Your task to perform on an android device: turn off improve location accuracy Image 0: 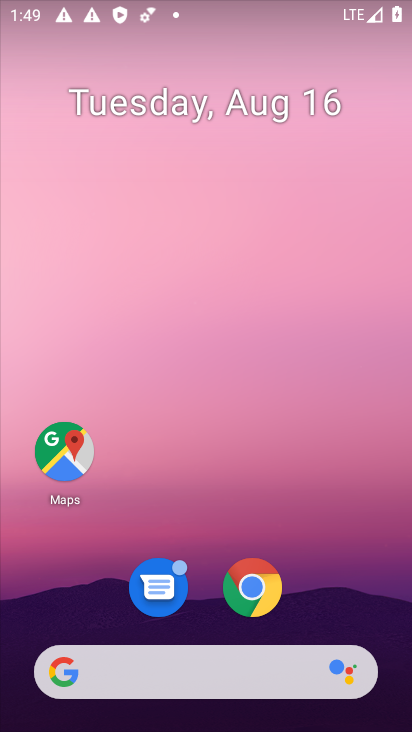
Step 0: drag from (194, 623) to (302, 24)
Your task to perform on an android device: turn off improve location accuracy Image 1: 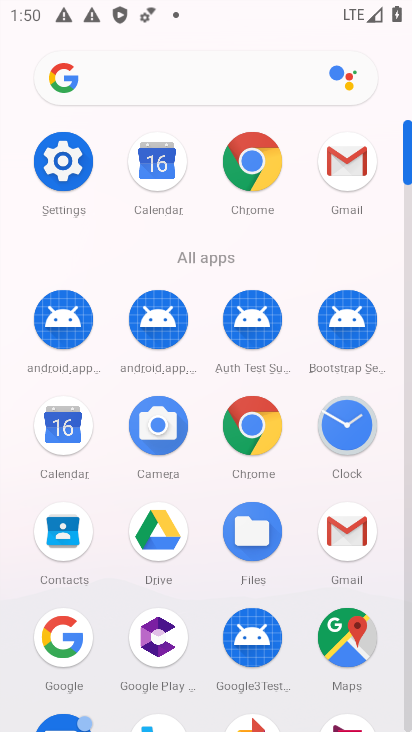
Step 1: click (61, 149)
Your task to perform on an android device: turn off improve location accuracy Image 2: 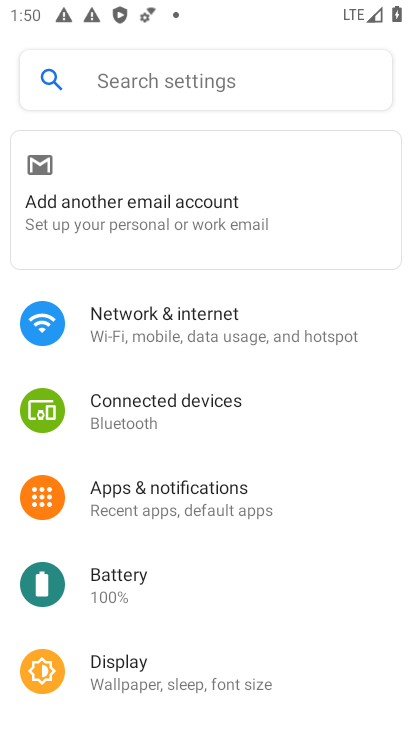
Step 2: drag from (209, 619) to (290, 314)
Your task to perform on an android device: turn off improve location accuracy Image 3: 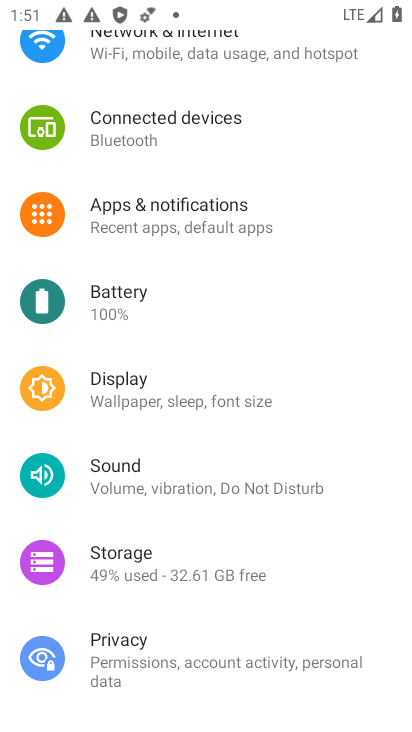
Step 3: drag from (217, 238) to (260, 105)
Your task to perform on an android device: turn off improve location accuracy Image 4: 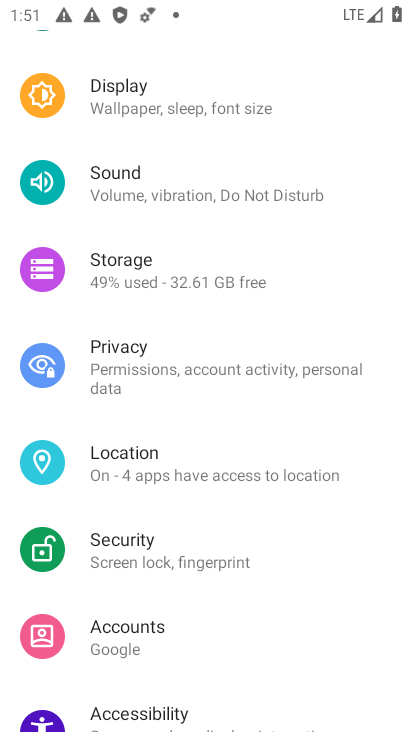
Step 4: click (122, 455)
Your task to perform on an android device: turn off improve location accuracy Image 5: 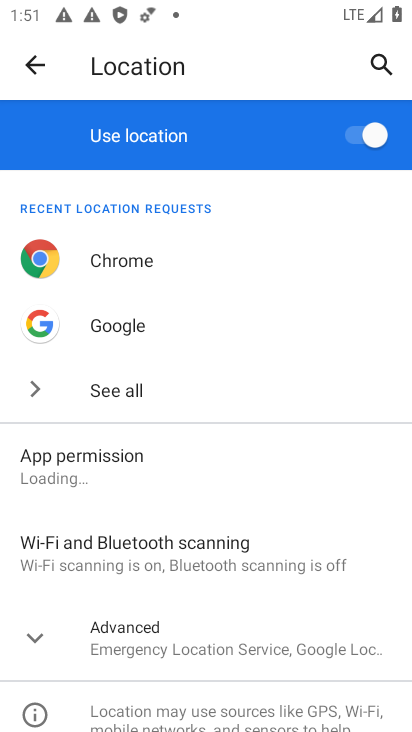
Step 5: click (190, 631)
Your task to perform on an android device: turn off improve location accuracy Image 6: 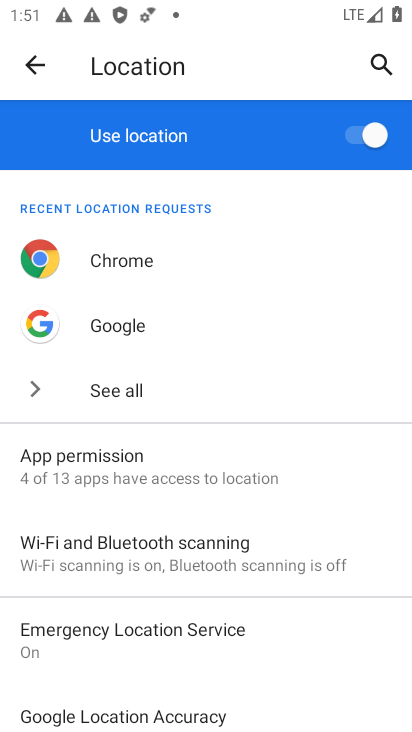
Step 6: drag from (180, 654) to (237, 456)
Your task to perform on an android device: turn off improve location accuracy Image 7: 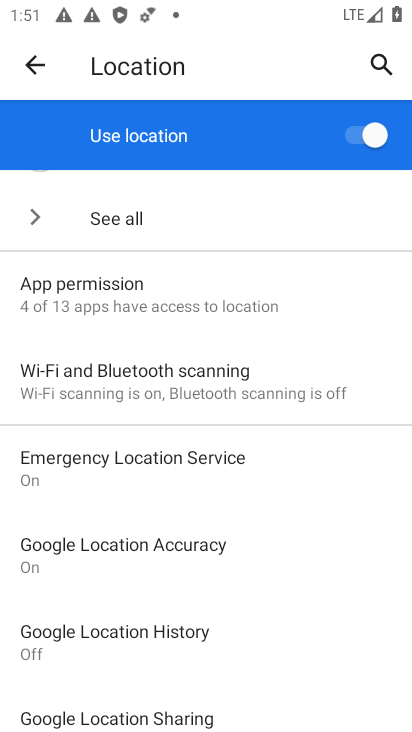
Step 7: click (100, 545)
Your task to perform on an android device: turn off improve location accuracy Image 8: 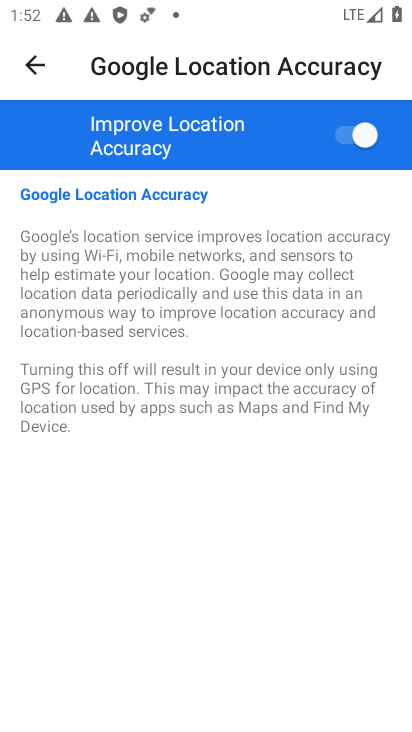
Step 8: click (346, 147)
Your task to perform on an android device: turn off improve location accuracy Image 9: 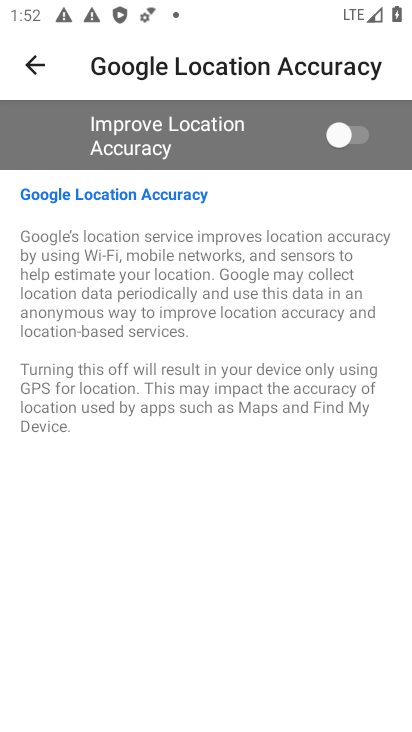
Step 9: task complete